Your task to perform on an android device: set the stopwatch Image 0: 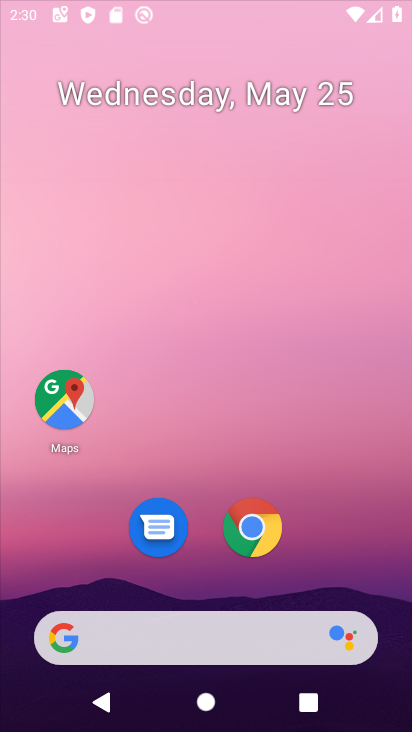
Step 0: drag from (312, 56) to (386, 625)
Your task to perform on an android device: set the stopwatch Image 1: 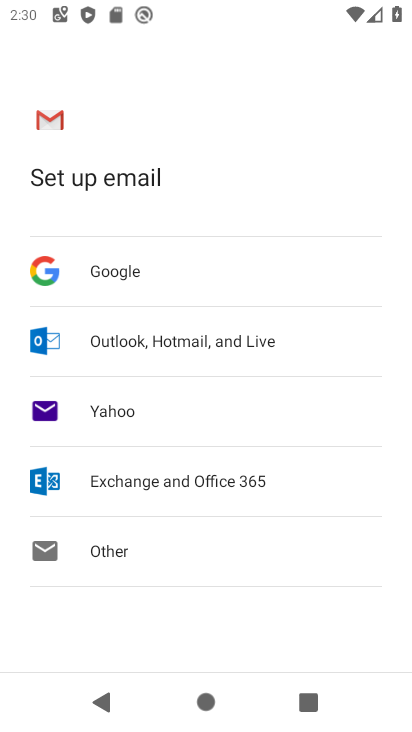
Step 1: press home button
Your task to perform on an android device: set the stopwatch Image 2: 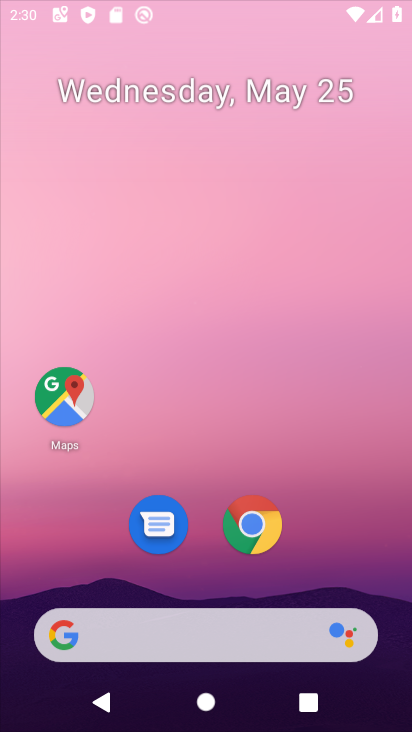
Step 2: drag from (166, 606) to (357, 24)
Your task to perform on an android device: set the stopwatch Image 3: 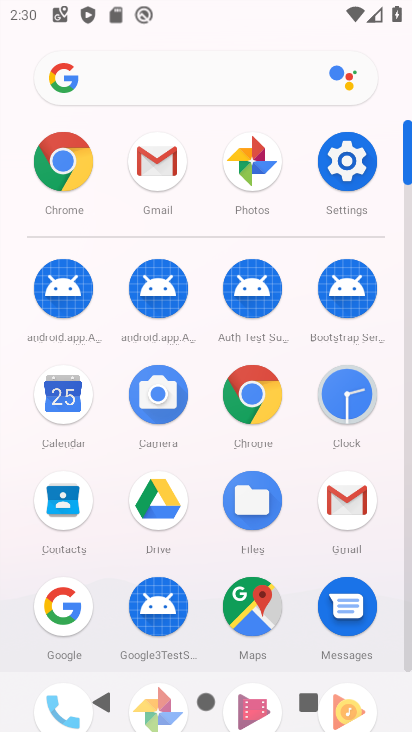
Step 3: click (351, 376)
Your task to perform on an android device: set the stopwatch Image 4: 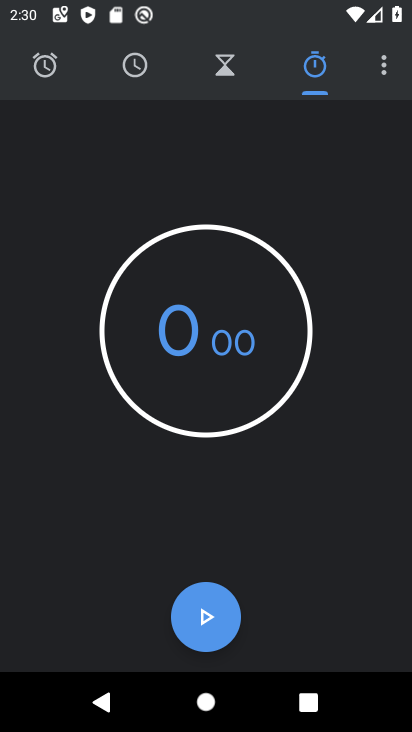
Step 4: click (205, 614)
Your task to perform on an android device: set the stopwatch Image 5: 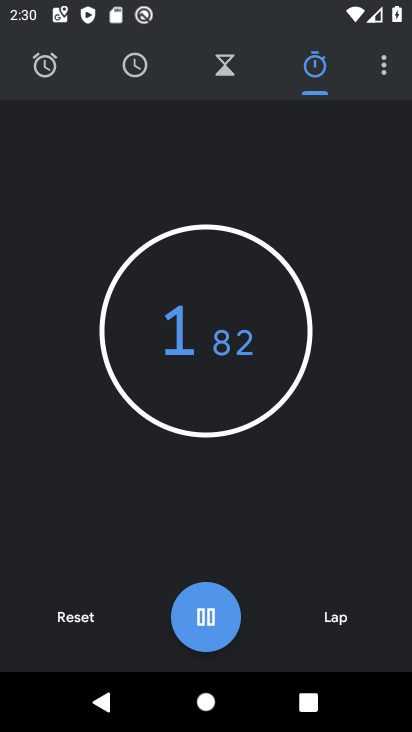
Step 5: click (73, 625)
Your task to perform on an android device: set the stopwatch Image 6: 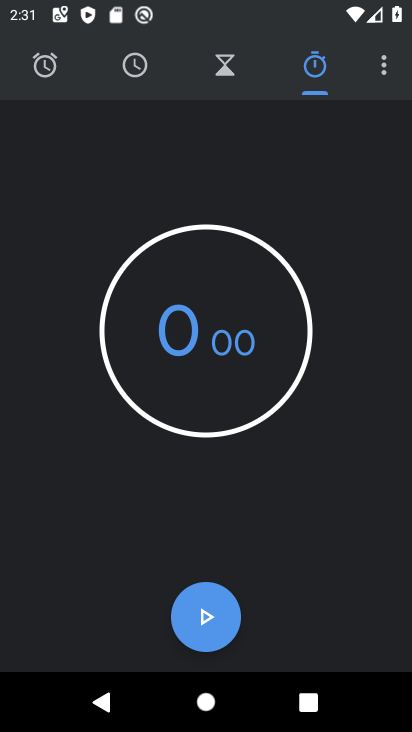
Step 6: click (206, 599)
Your task to perform on an android device: set the stopwatch Image 7: 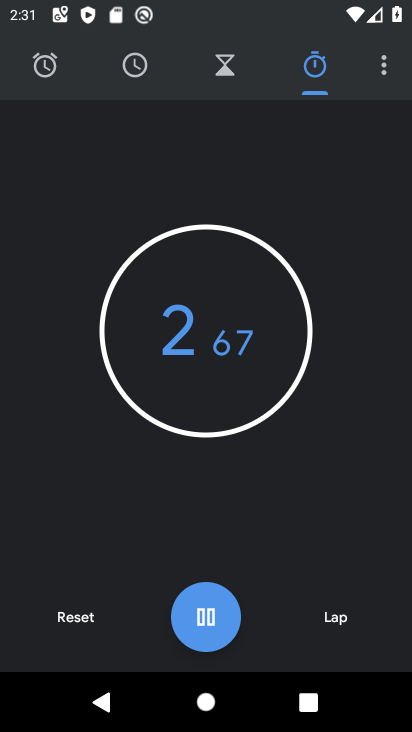
Step 7: task complete